Your task to perform on an android device: toggle javascript in the chrome app Image 0: 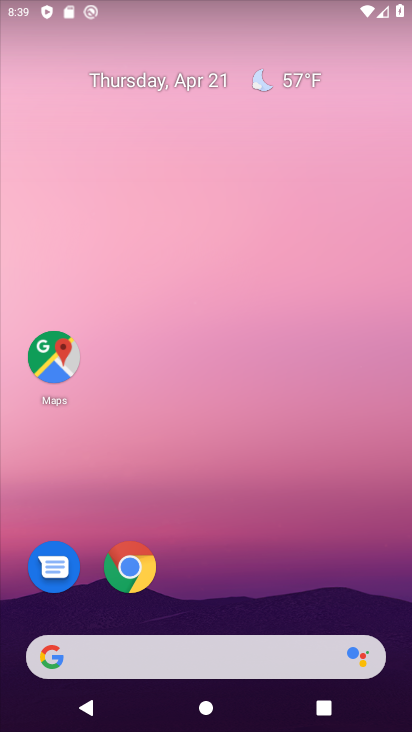
Step 0: drag from (194, 625) to (136, 32)
Your task to perform on an android device: toggle javascript in the chrome app Image 1: 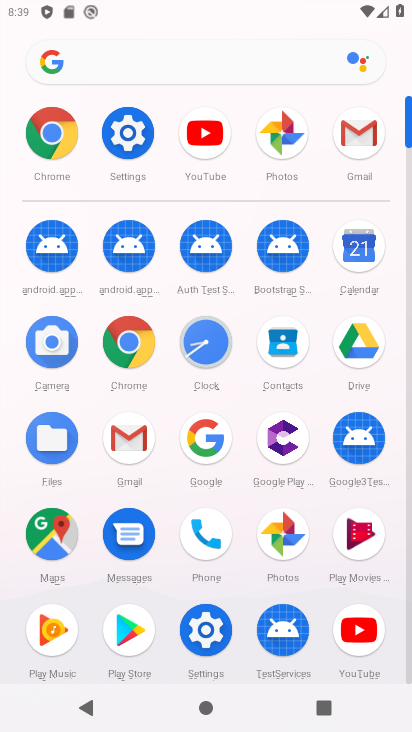
Step 1: click (131, 342)
Your task to perform on an android device: toggle javascript in the chrome app Image 2: 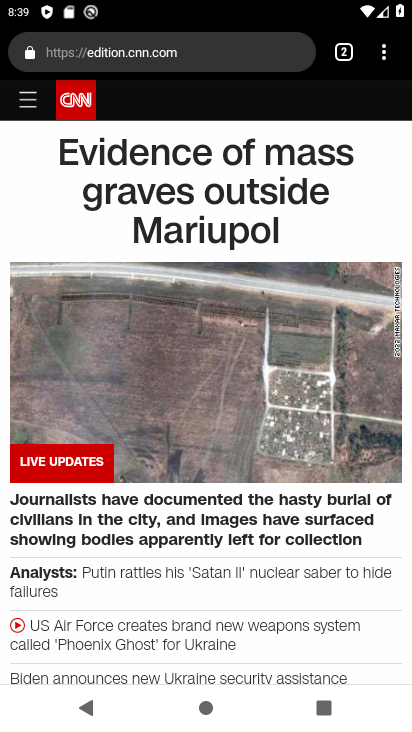
Step 2: drag from (387, 53) to (210, 596)
Your task to perform on an android device: toggle javascript in the chrome app Image 3: 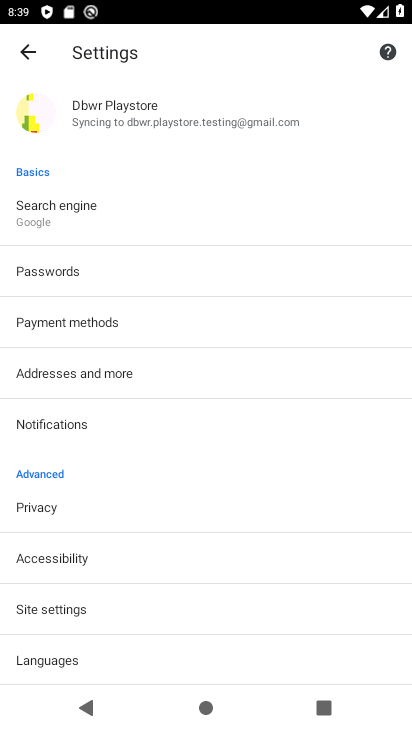
Step 3: drag from (105, 582) to (83, 248)
Your task to perform on an android device: toggle javascript in the chrome app Image 4: 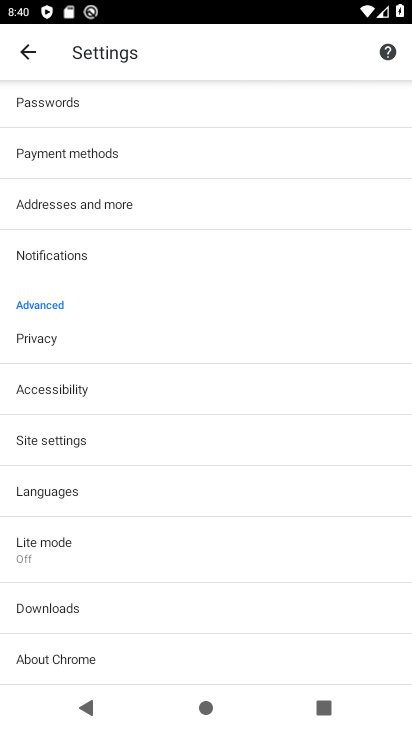
Step 4: click (65, 435)
Your task to perform on an android device: toggle javascript in the chrome app Image 5: 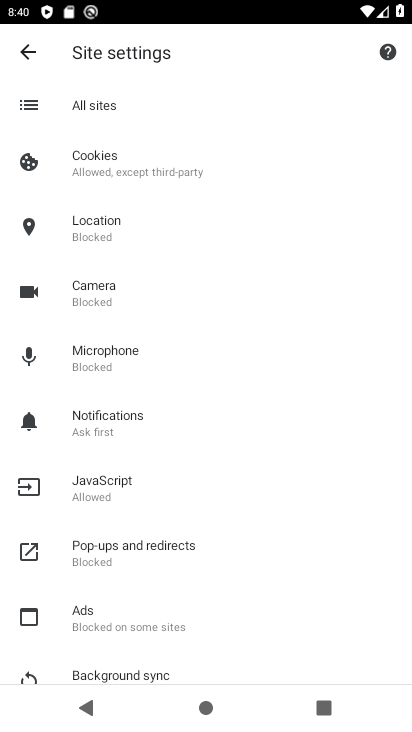
Step 5: click (118, 493)
Your task to perform on an android device: toggle javascript in the chrome app Image 6: 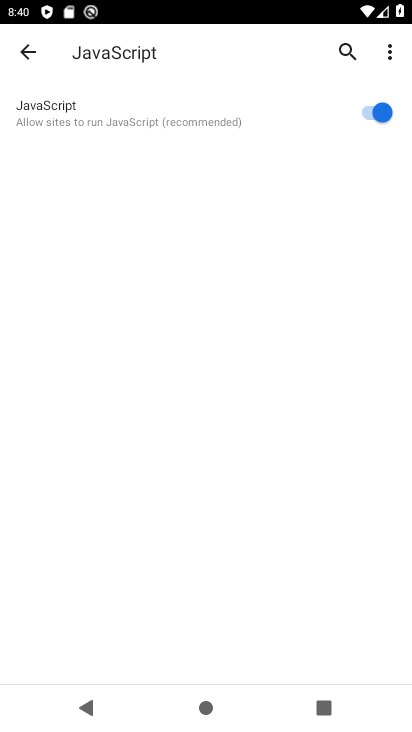
Step 6: click (365, 111)
Your task to perform on an android device: toggle javascript in the chrome app Image 7: 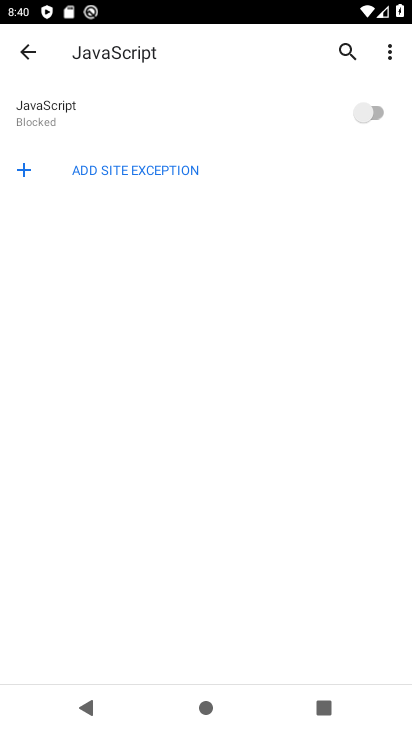
Step 7: task complete